Your task to perform on an android device: Open Youtube and go to "Your channel" Image 0: 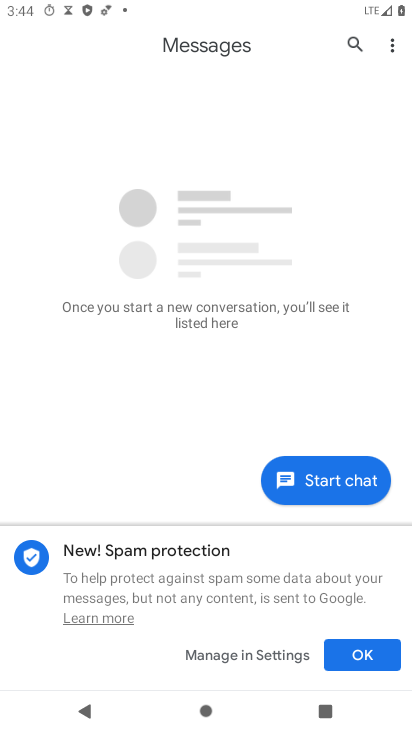
Step 0: press home button
Your task to perform on an android device: Open Youtube and go to "Your channel" Image 1: 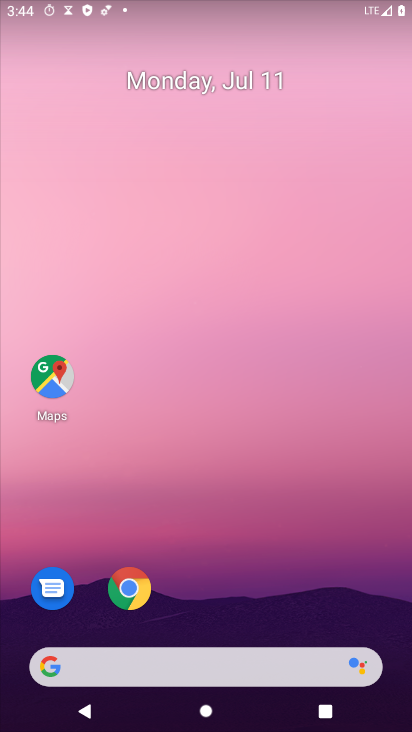
Step 1: drag from (249, 577) to (268, 0)
Your task to perform on an android device: Open Youtube and go to "Your channel" Image 2: 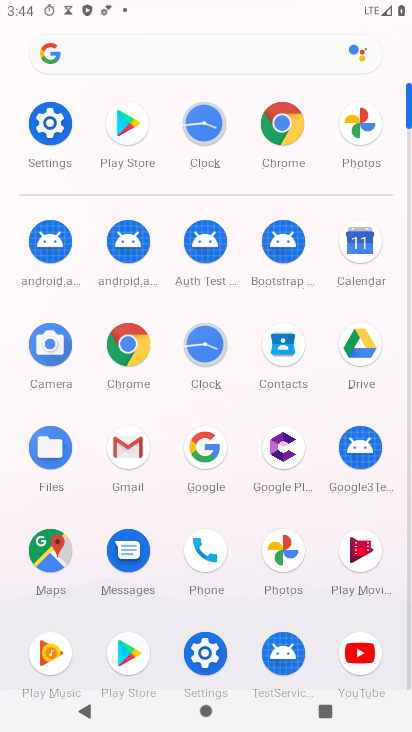
Step 2: click (357, 655)
Your task to perform on an android device: Open Youtube and go to "Your channel" Image 3: 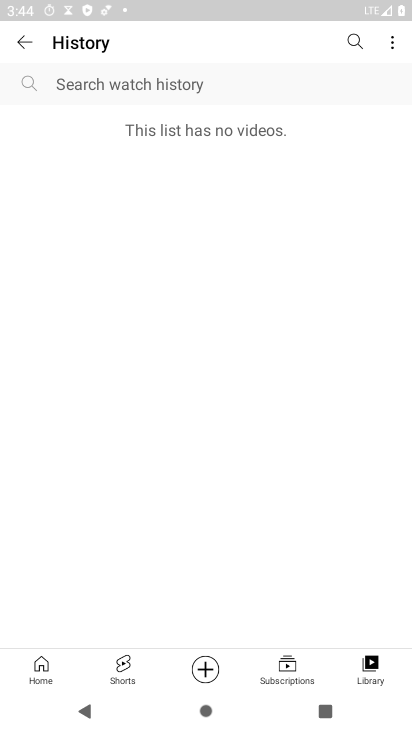
Step 3: click (384, 46)
Your task to perform on an android device: Open Youtube and go to "Your channel" Image 4: 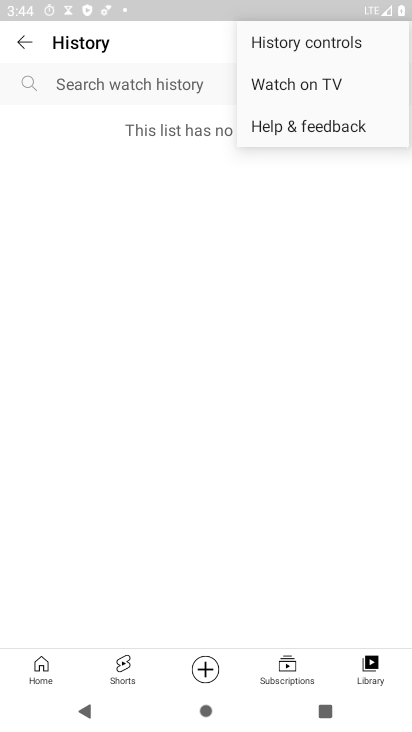
Step 4: click (35, 670)
Your task to perform on an android device: Open Youtube and go to "Your channel" Image 5: 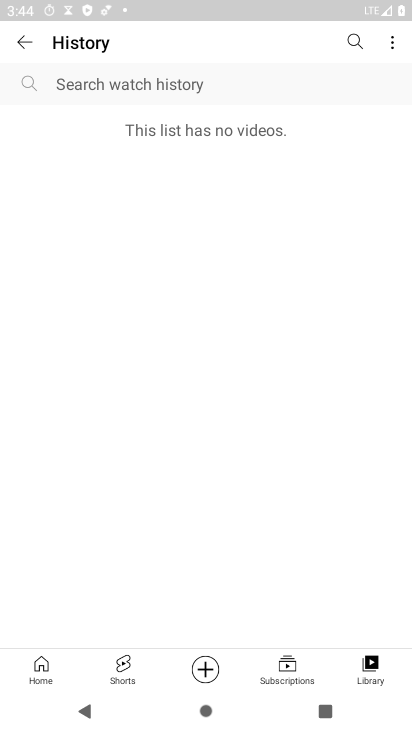
Step 5: click (35, 670)
Your task to perform on an android device: Open Youtube and go to "Your channel" Image 6: 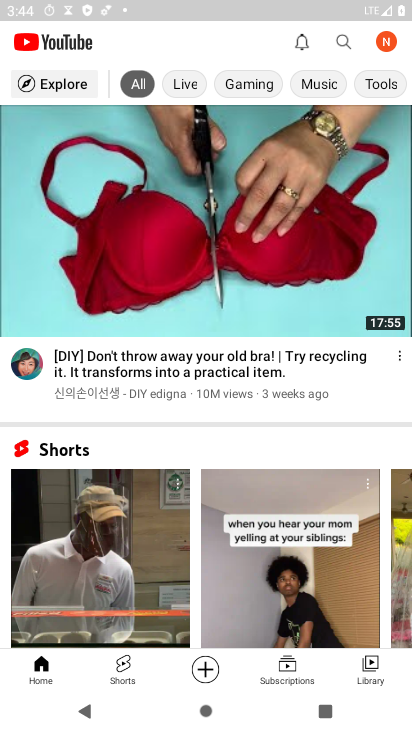
Step 6: click (386, 35)
Your task to perform on an android device: Open Youtube and go to "Your channel" Image 7: 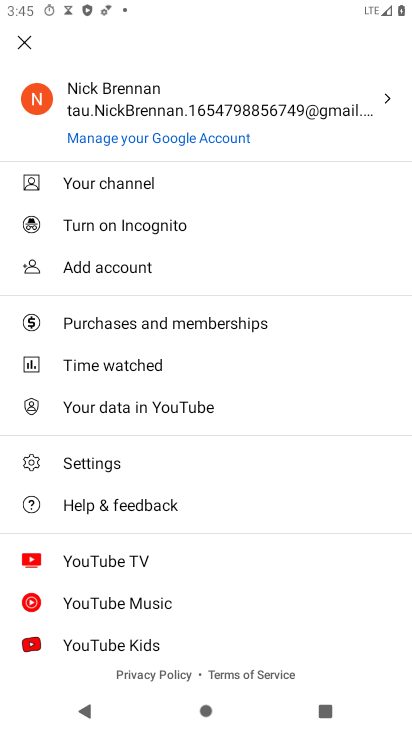
Step 7: click (103, 187)
Your task to perform on an android device: Open Youtube and go to "Your channel" Image 8: 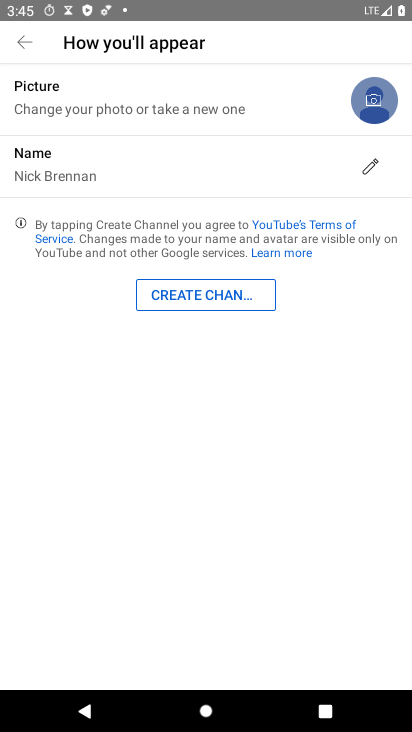
Step 8: task complete